Your task to perform on an android device: change alarm snooze length Image 0: 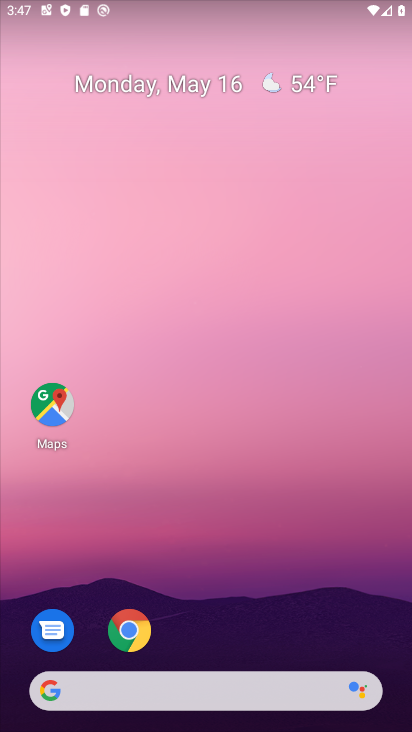
Step 0: drag from (290, 630) to (259, 29)
Your task to perform on an android device: change alarm snooze length Image 1: 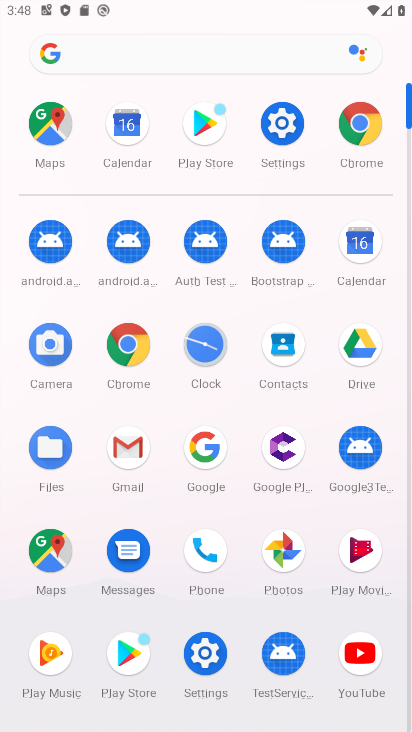
Step 1: click (202, 334)
Your task to perform on an android device: change alarm snooze length Image 2: 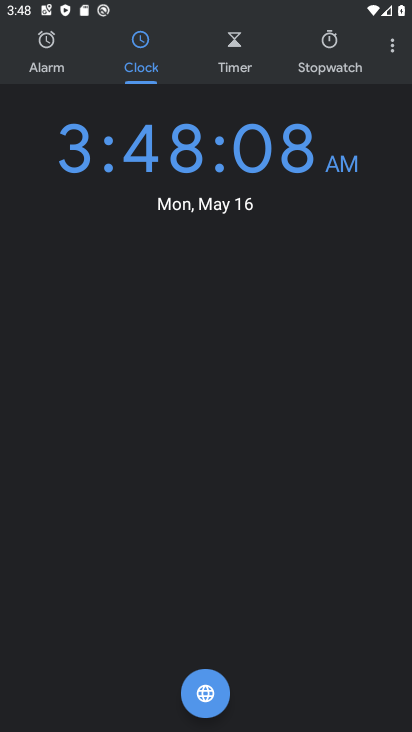
Step 2: click (378, 54)
Your task to perform on an android device: change alarm snooze length Image 3: 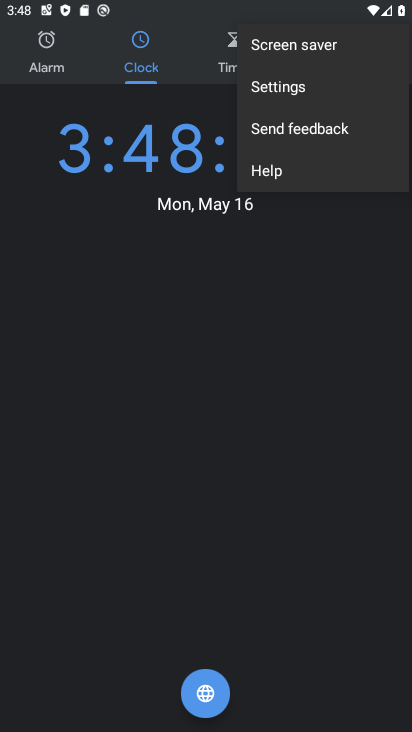
Step 3: click (366, 90)
Your task to perform on an android device: change alarm snooze length Image 4: 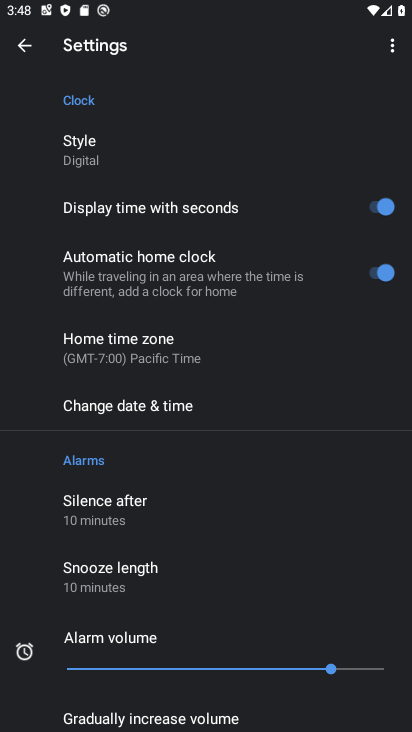
Step 4: click (285, 582)
Your task to perform on an android device: change alarm snooze length Image 5: 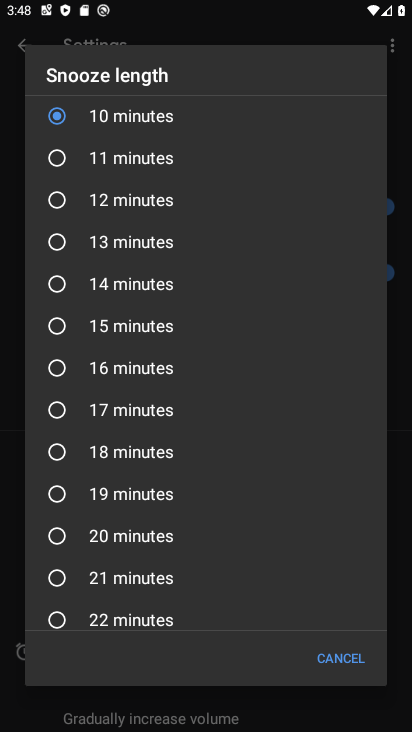
Step 5: click (126, 454)
Your task to perform on an android device: change alarm snooze length Image 6: 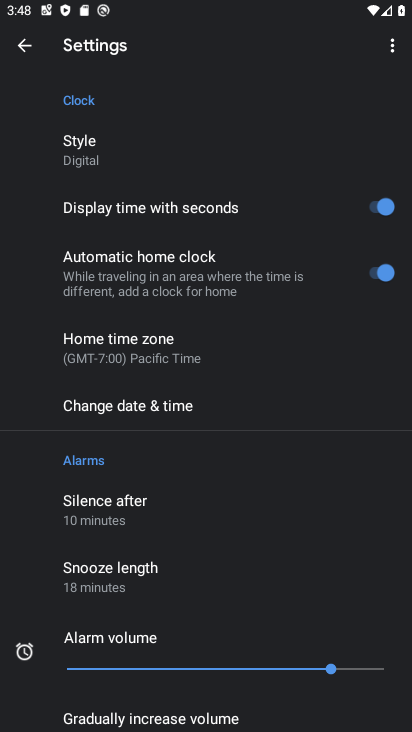
Step 6: task complete